Your task to perform on an android device: Go to notification settings Image 0: 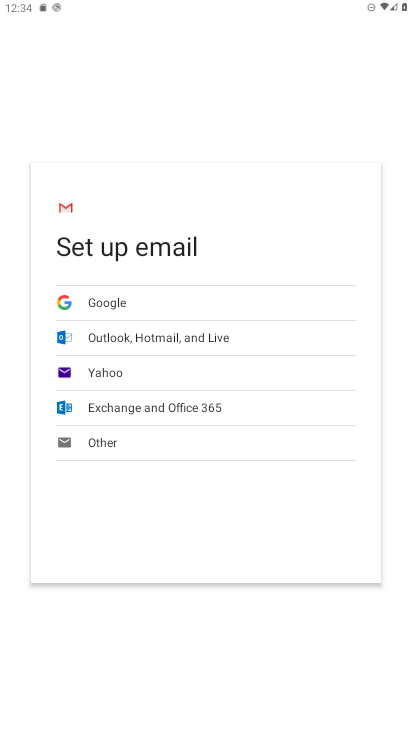
Step 0: press home button
Your task to perform on an android device: Go to notification settings Image 1: 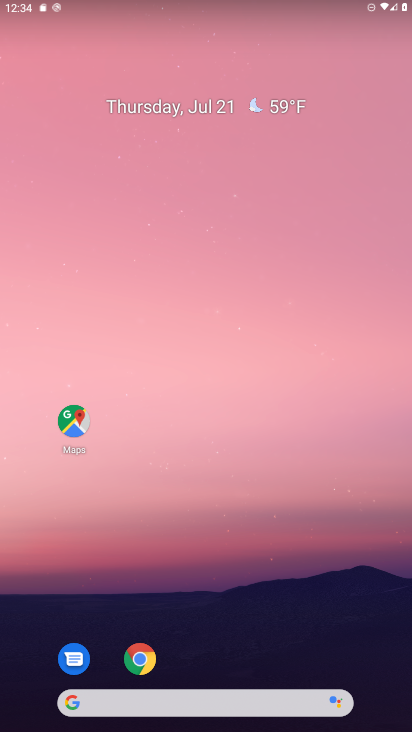
Step 1: drag from (40, 549) to (232, 96)
Your task to perform on an android device: Go to notification settings Image 2: 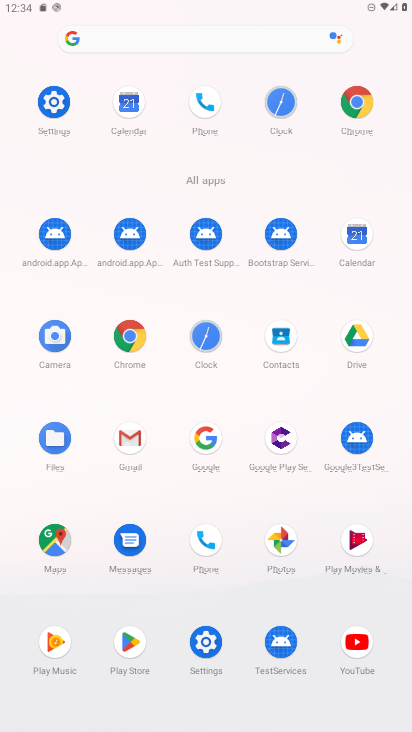
Step 2: click (42, 109)
Your task to perform on an android device: Go to notification settings Image 3: 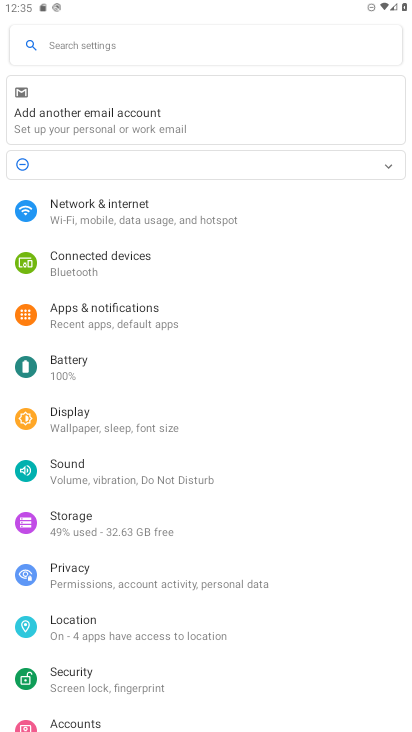
Step 3: click (120, 314)
Your task to perform on an android device: Go to notification settings Image 4: 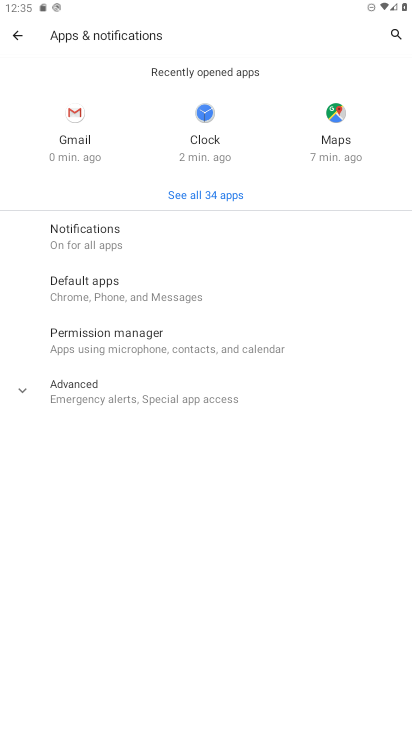
Step 4: click (122, 223)
Your task to perform on an android device: Go to notification settings Image 5: 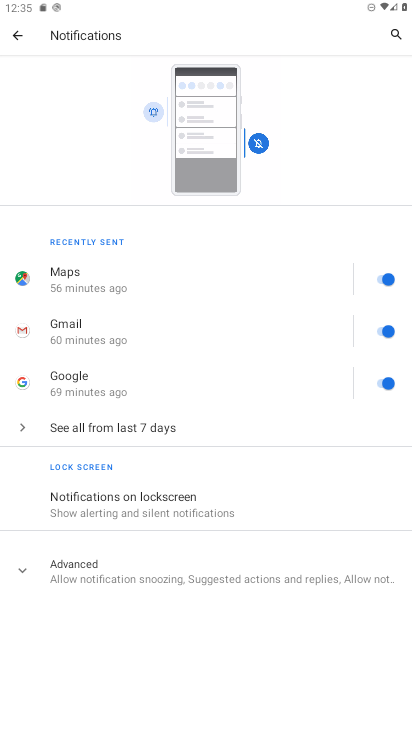
Step 5: task complete